Your task to perform on an android device: turn off airplane mode Image 0: 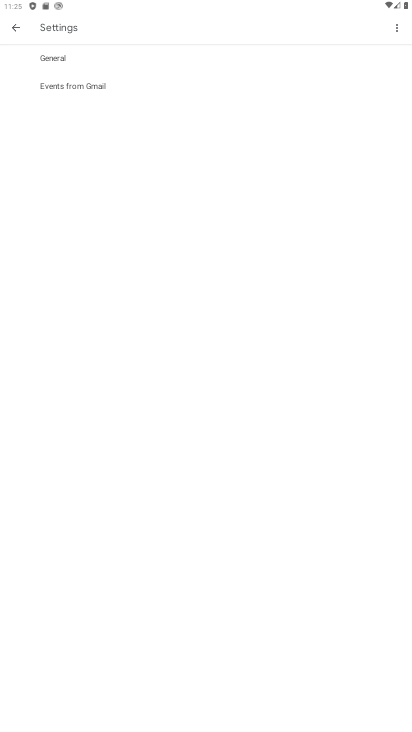
Step 0: drag from (143, 501) to (234, 269)
Your task to perform on an android device: turn off airplane mode Image 1: 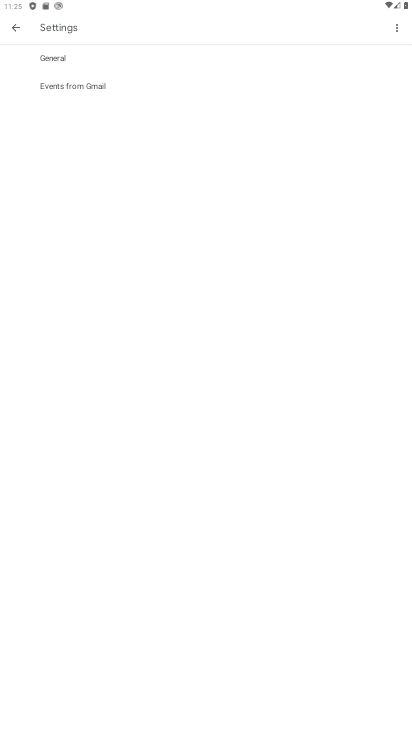
Step 1: press home button
Your task to perform on an android device: turn off airplane mode Image 2: 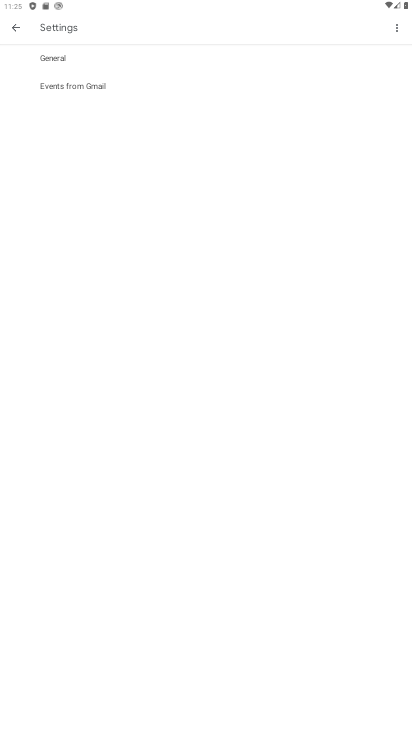
Step 2: drag from (122, 475) to (249, 153)
Your task to perform on an android device: turn off airplane mode Image 3: 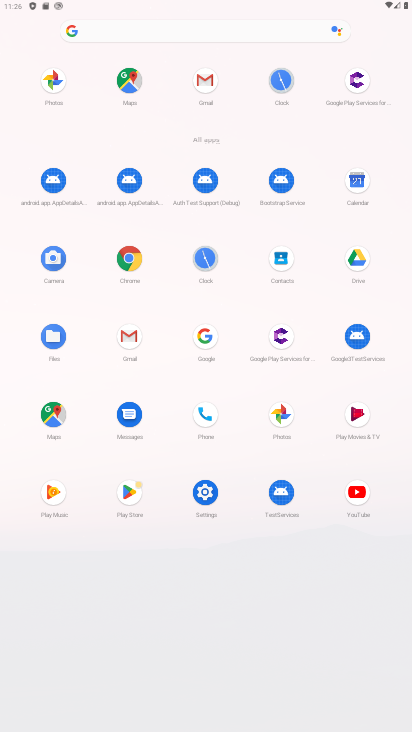
Step 3: click (201, 495)
Your task to perform on an android device: turn off airplane mode Image 4: 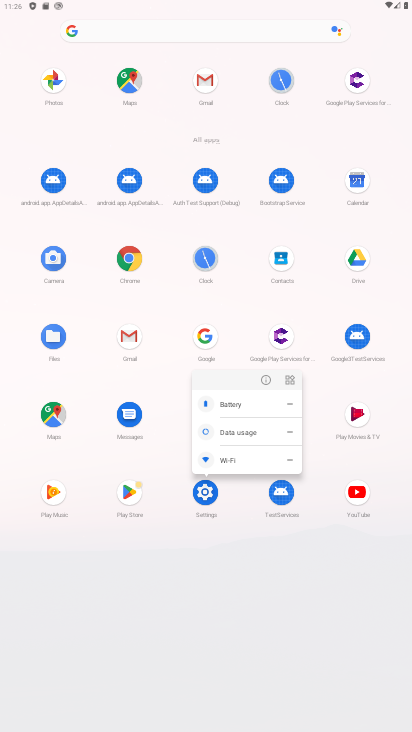
Step 4: click (267, 378)
Your task to perform on an android device: turn off airplane mode Image 5: 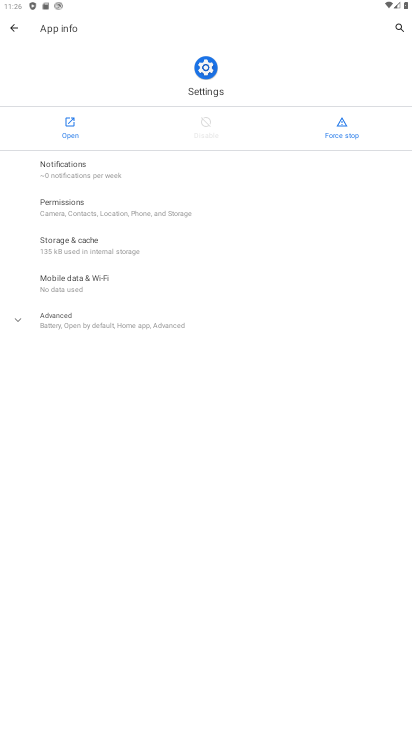
Step 5: click (173, 175)
Your task to perform on an android device: turn off airplane mode Image 6: 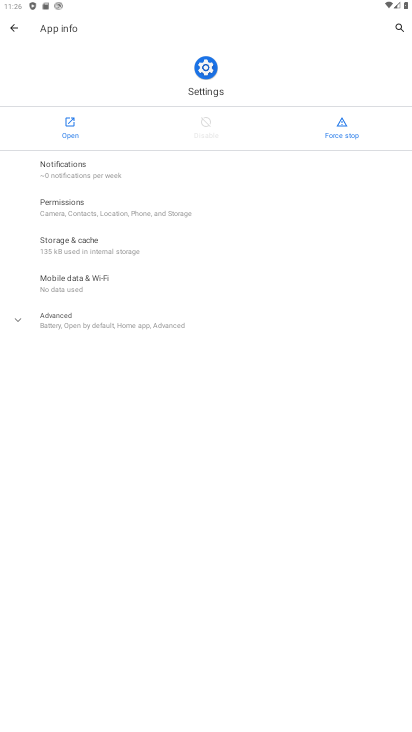
Step 6: click (59, 124)
Your task to perform on an android device: turn off airplane mode Image 7: 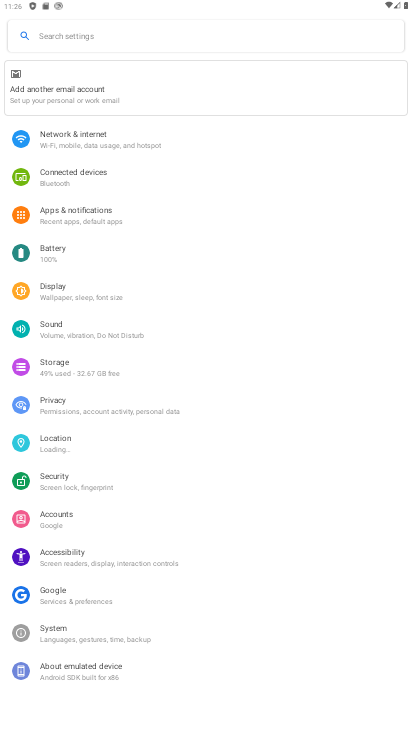
Step 7: click (88, 139)
Your task to perform on an android device: turn off airplane mode Image 8: 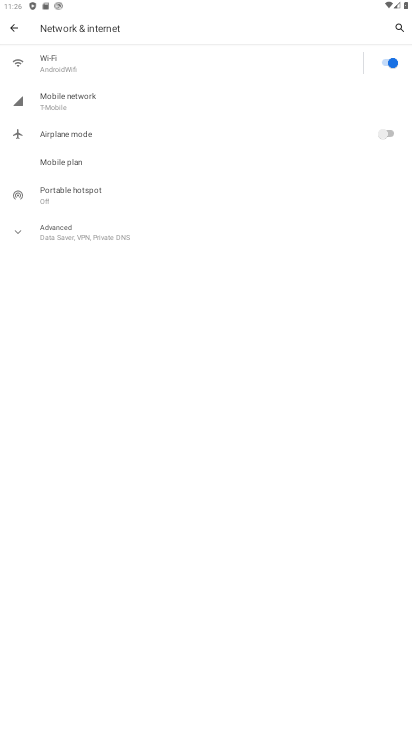
Step 8: task complete